Your task to perform on an android device: Go to privacy settings Image 0: 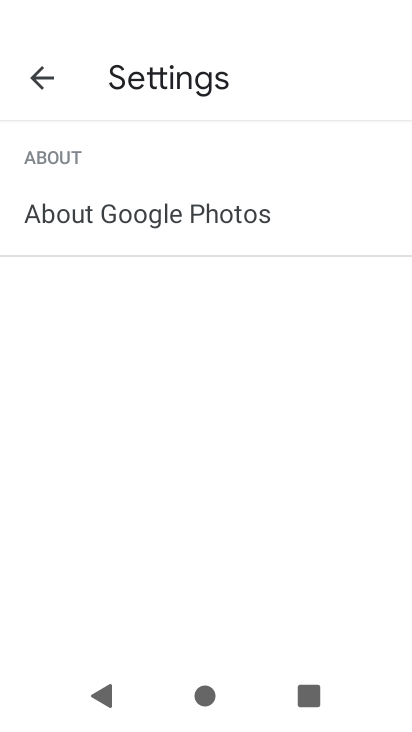
Step 0: press home button
Your task to perform on an android device: Go to privacy settings Image 1: 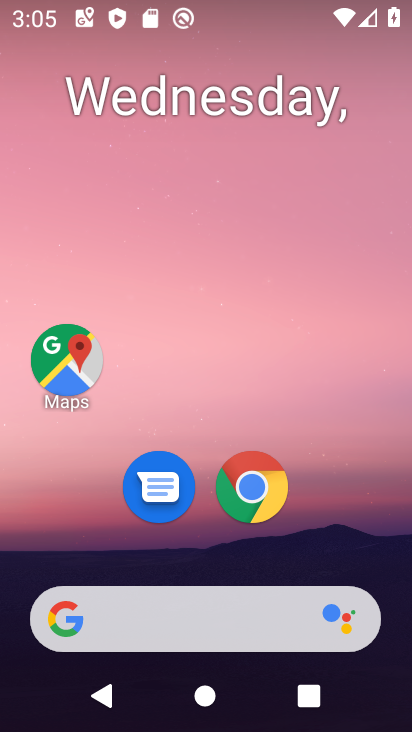
Step 1: drag from (256, 584) to (249, 144)
Your task to perform on an android device: Go to privacy settings Image 2: 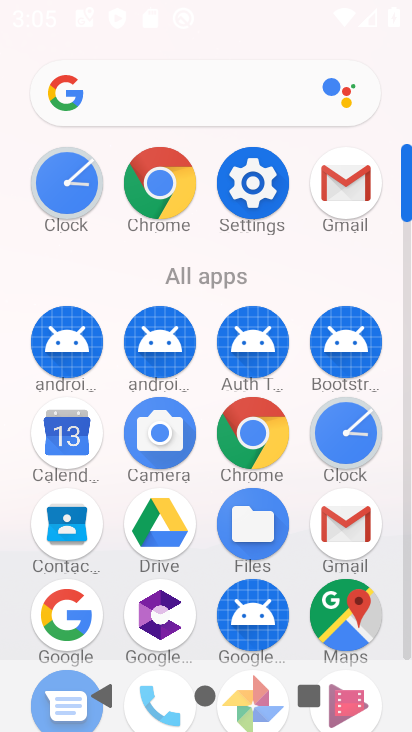
Step 2: click (266, 213)
Your task to perform on an android device: Go to privacy settings Image 3: 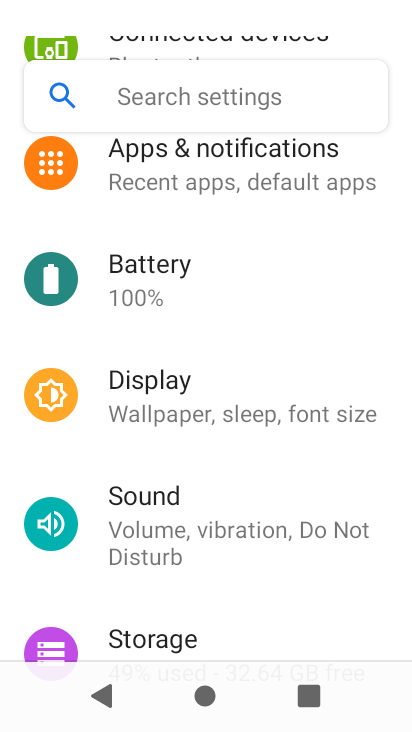
Step 3: drag from (200, 530) to (239, 341)
Your task to perform on an android device: Go to privacy settings Image 4: 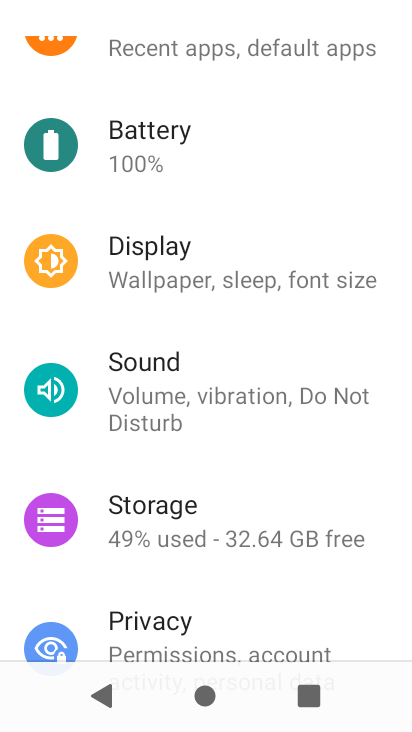
Step 4: click (211, 625)
Your task to perform on an android device: Go to privacy settings Image 5: 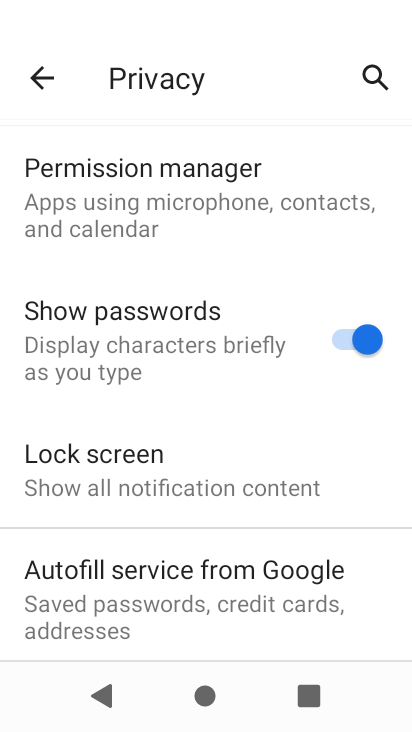
Step 5: task complete